Your task to perform on an android device: turn off priority inbox in the gmail app Image 0: 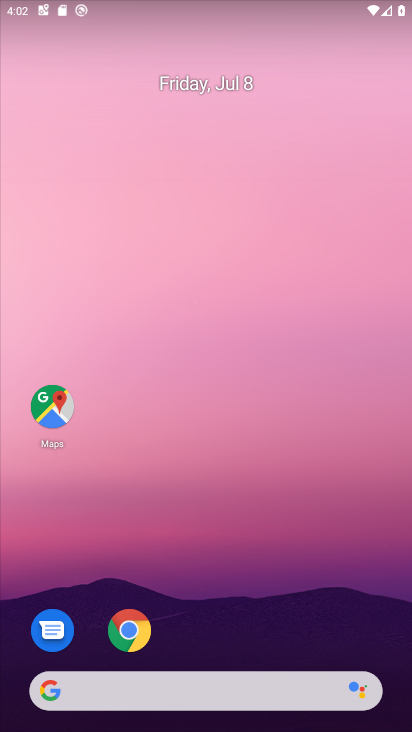
Step 0: drag from (278, 514) to (297, 2)
Your task to perform on an android device: turn off priority inbox in the gmail app Image 1: 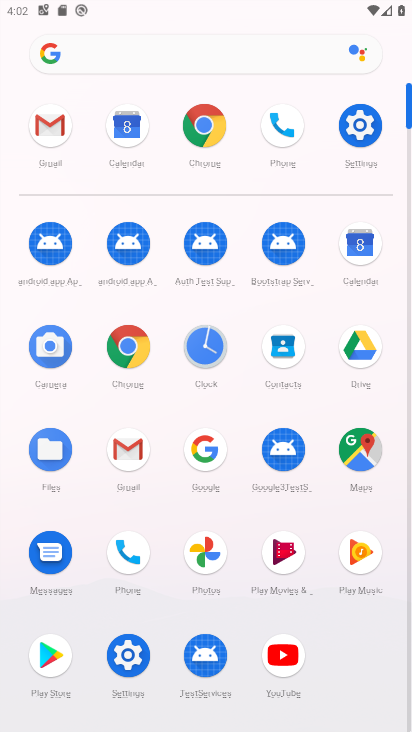
Step 1: click (46, 142)
Your task to perform on an android device: turn off priority inbox in the gmail app Image 2: 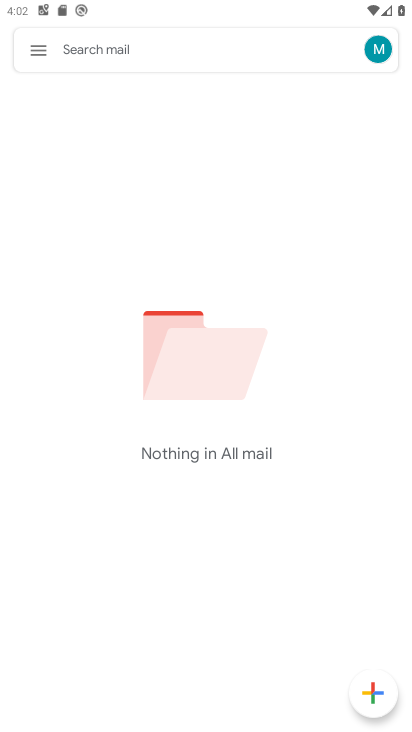
Step 2: click (39, 43)
Your task to perform on an android device: turn off priority inbox in the gmail app Image 3: 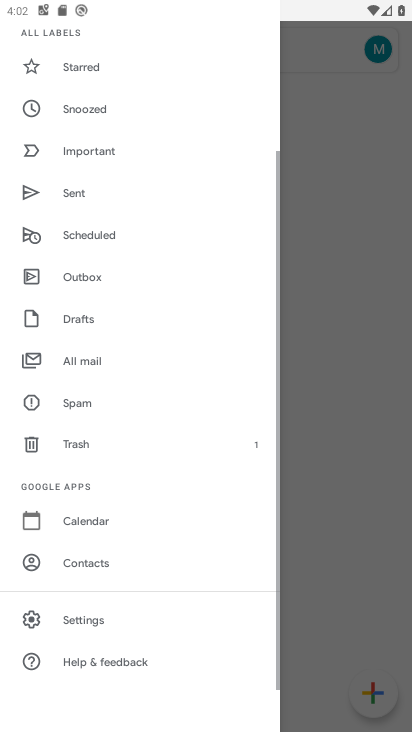
Step 3: click (91, 616)
Your task to perform on an android device: turn off priority inbox in the gmail app Image 4: 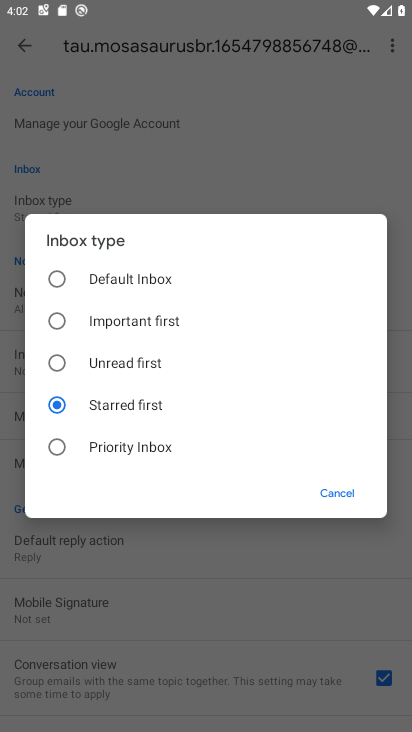
Step 4: task complete